Your task to perform on an android device: Go to Wikipedia Image 0: 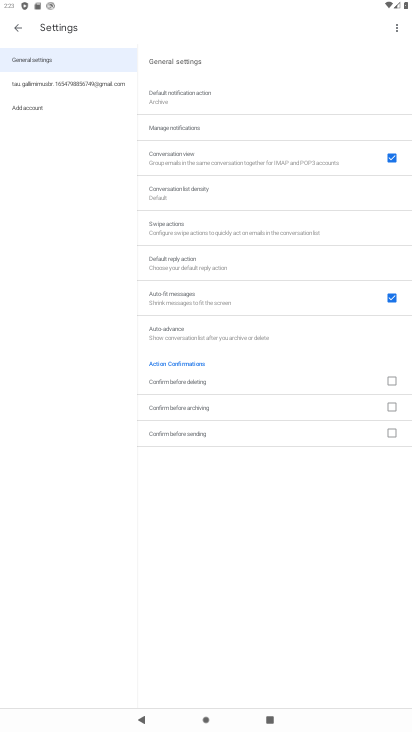
Step 0: press home button
Your task to perform on an android device: Go to Wikipedia Image 1: 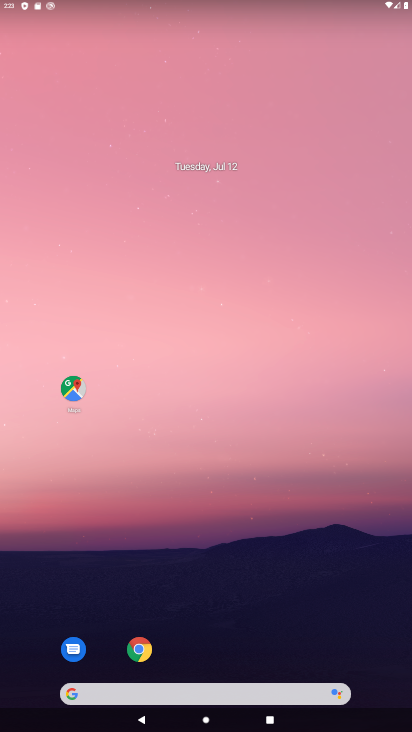
Step 1: click (143, 665)
Your task to perform on an android device: Go to Wikipedia Image 2: 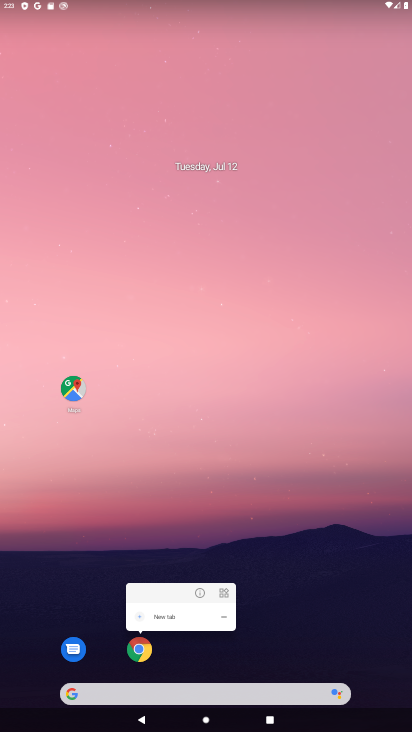
Step 2: click (143, 665)
Your task to perform on an android device: Go to Wikipedia Image 3: 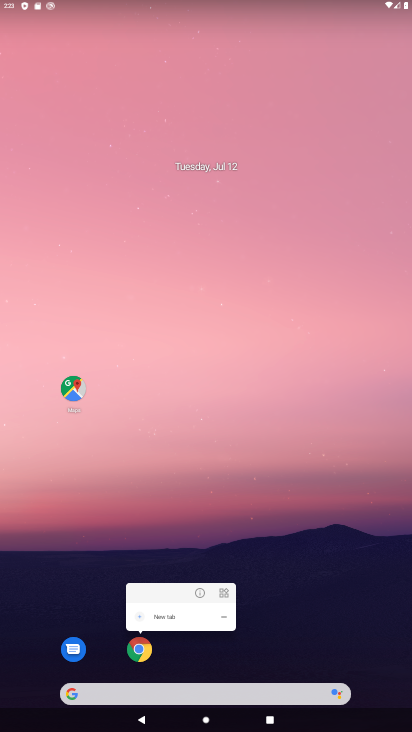
Step 3: click (143, 665)
Your task to perform on an android device: Go to Wikipedia Image 4: 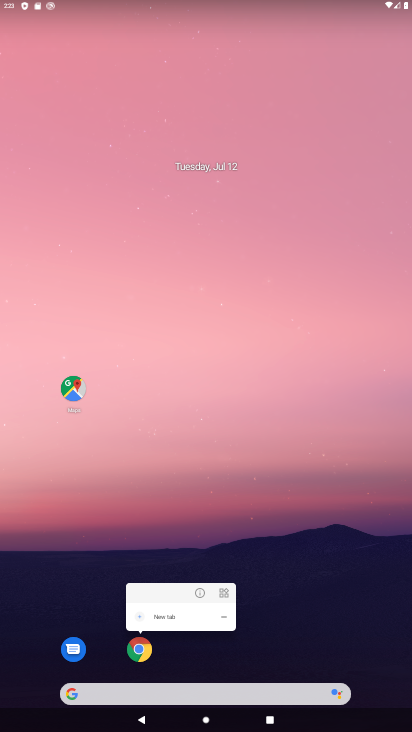
Step 4: click (143, 665)
Your task to perform on an android device: Go to Wikipedia Image 5: 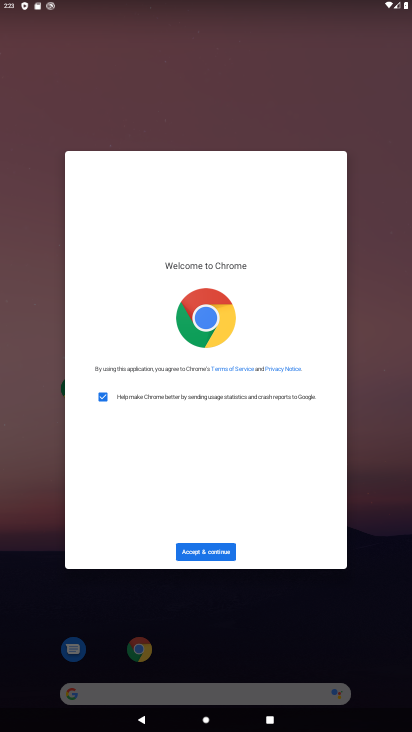
Step 5: click (192, 540)
Your task to perform on an android device: Go to Wikipedia Image 6: 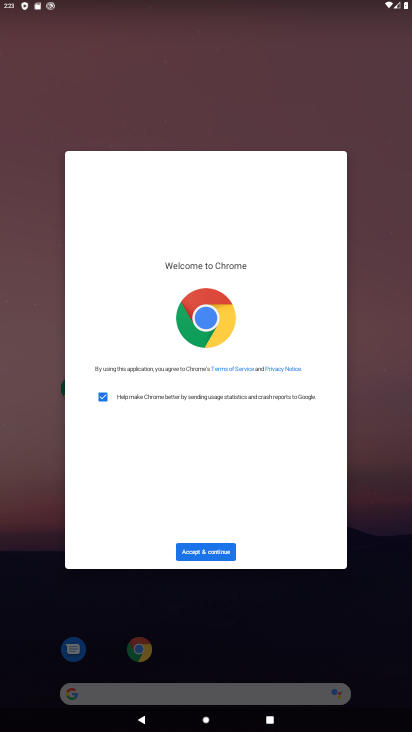
Step 6: click (218, 557)
Your task to perform on an android device: Go to Wikipedia Image 7: 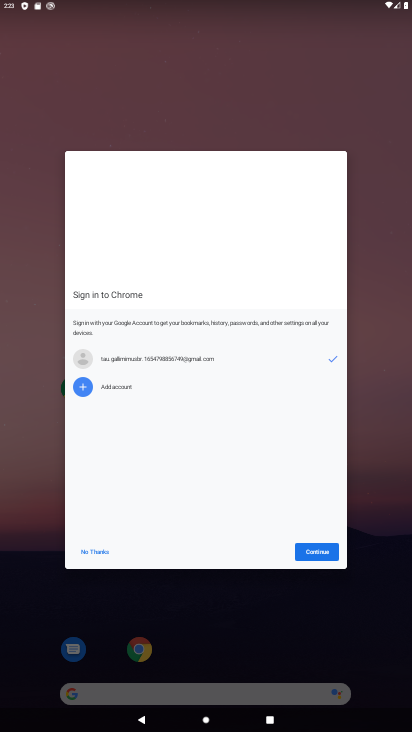
Step 7: click (339, 556)
Your task to perform on an android device: Go to Wikipedia Image 8: 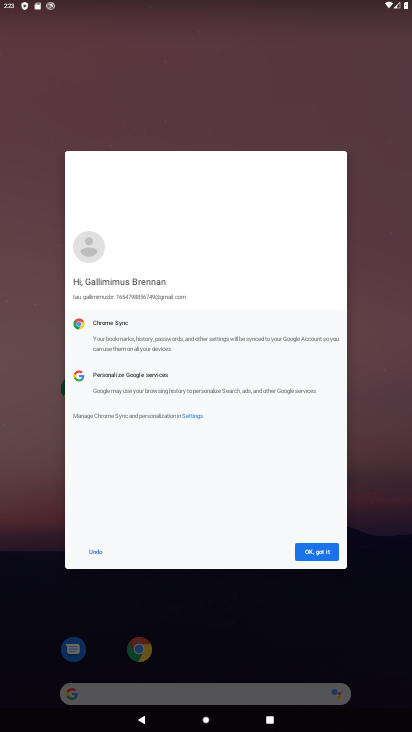
Step 8: click (339, 556)
Your task to perform on an android device: Go to Wikipedia Image 9: 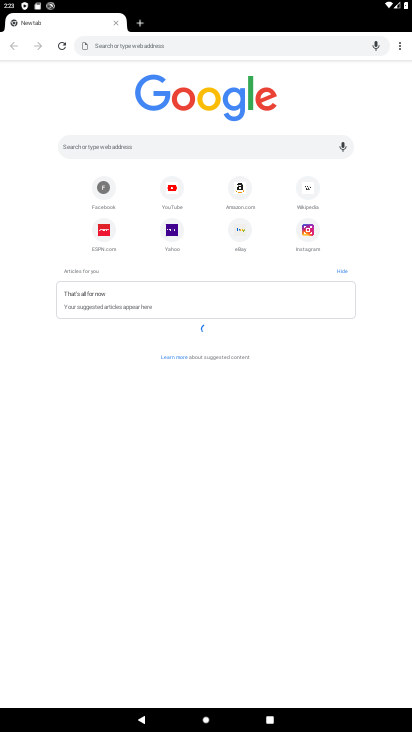
Step 9: click (191, 151)
Your task to perform on an android device: Go to Wikipedia Image 10: 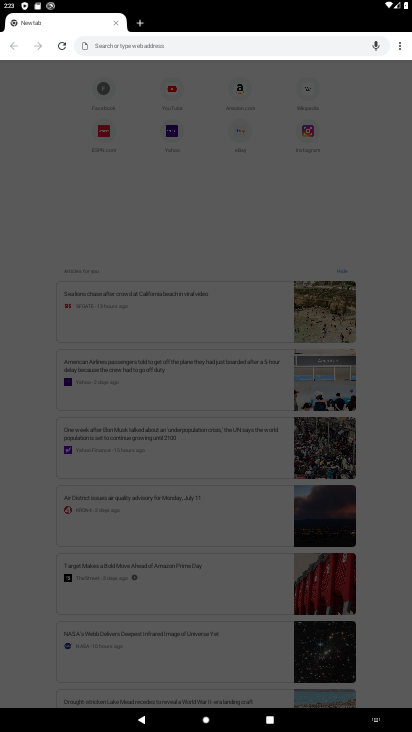
Step 10: press back button
Your task to perform on an android device: Go to Wikipedia Image 11: 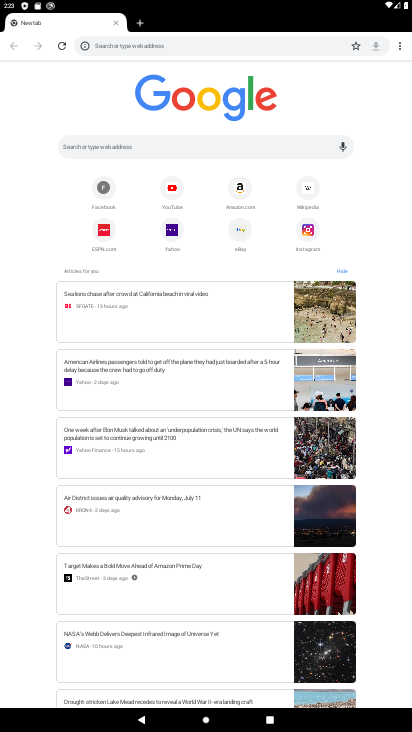
Step 11: click (190, 132)
Your task to perform on an android device: Go to Wikipedia Image 12: 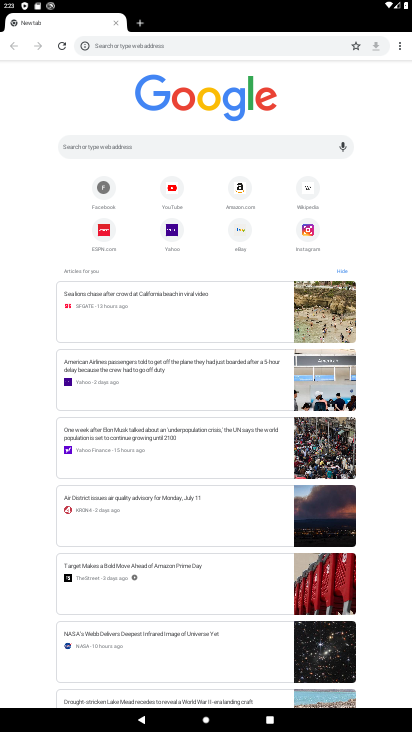
Step 12: click (128, 146)
Your task to perform on an android device: Go to Wikipedia Image 13: 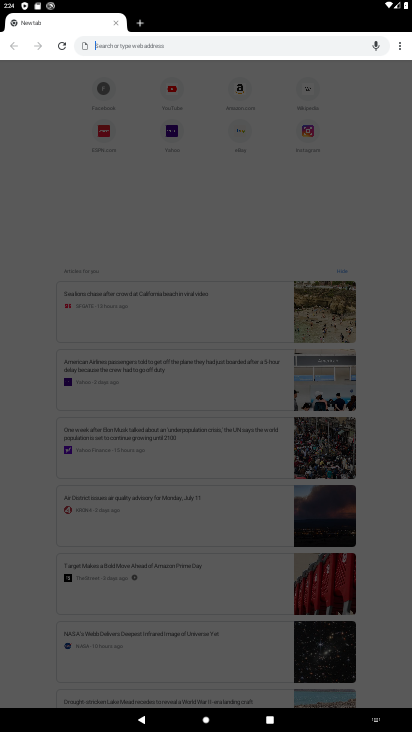
Step 13: type "wikipedia"
Your task to perform on an android device: Go to Wikipedia Image 14: 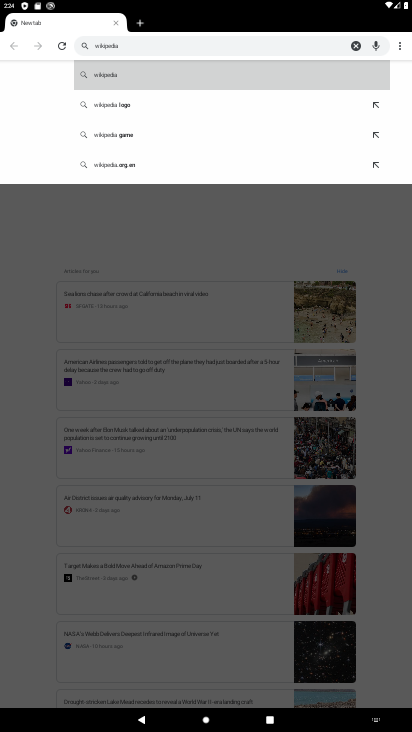
Step 14: click (176, 78)
Your task to perform on an android device: Go to Wikipedia Image 15: 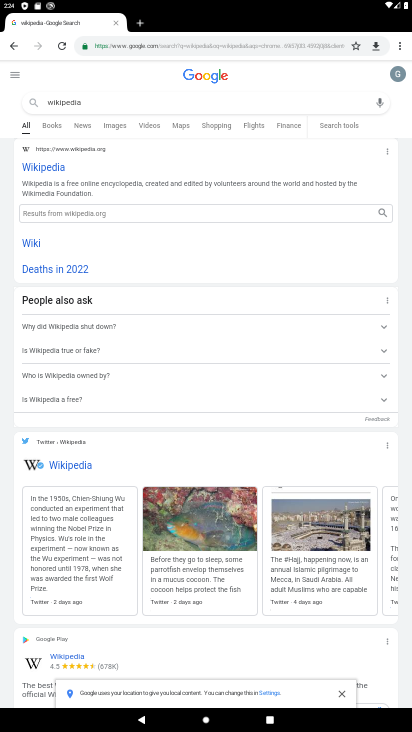
Step 15: click (24, 167)
Your task to perform on an android device: Go to Wikipedia Image 16: 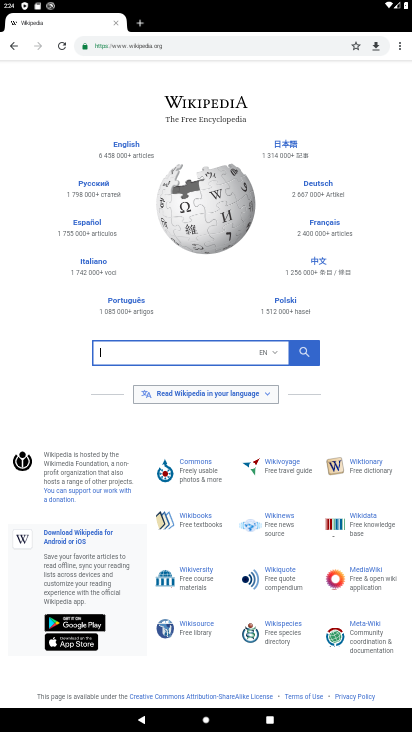
Step 16: task complete